Your task to perform on an android device: toggle notification dots Image 0: 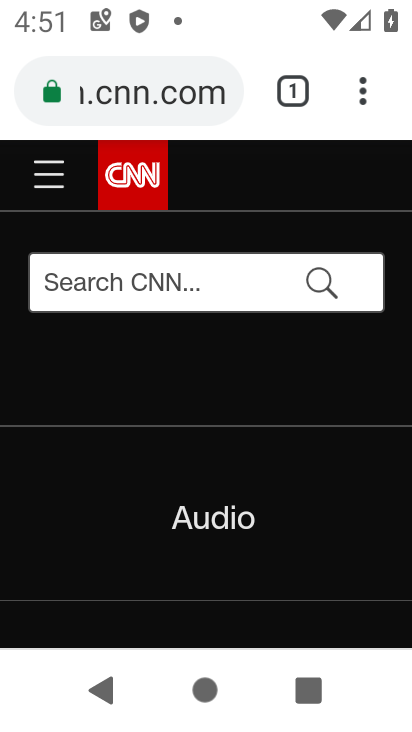
Step 0: press home button
Your task to perform on an android device: toggle notification dots Image 1: 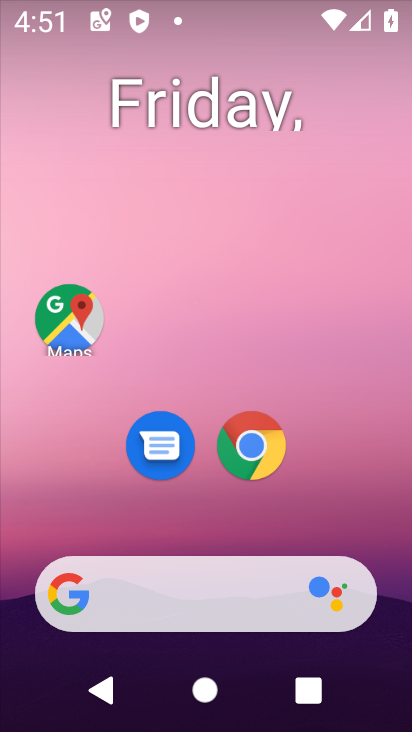
Step 1: drag from (339, 500) to (359, 161)
Your task to perform on an android device: toggle notification dots Image 2: 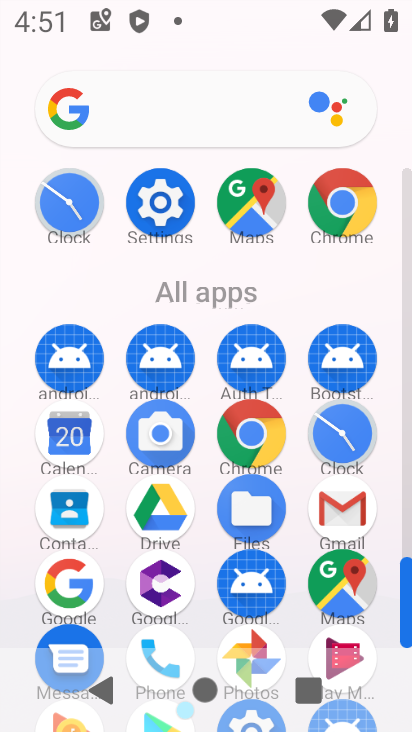
Step 2: click (156, 202)
Your task to perform on an android device: toggle notification dots Image 3: 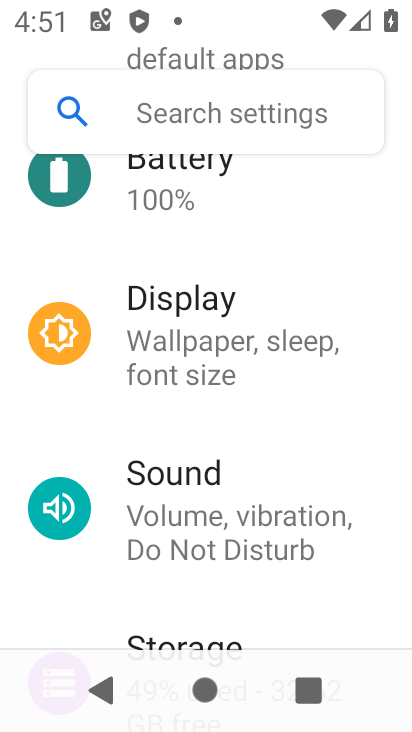
Step 3: drag from (150, 517) to (285, 84)
Your task to perform on an android device: toggle notification dots Image 4: 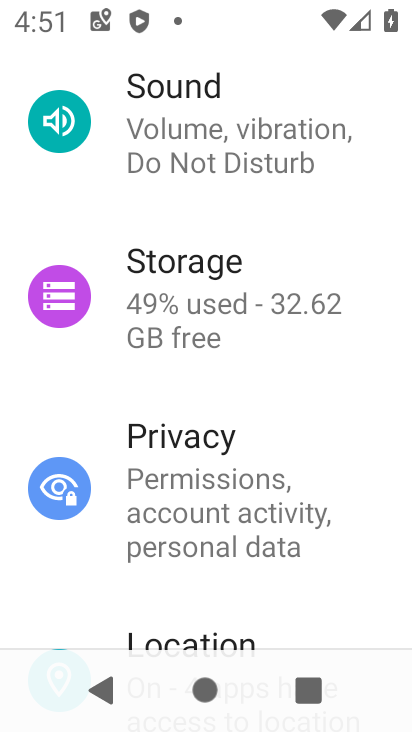
Step 4: drag from (194, 245) to (257, 631)
Your task to perform on an android device: toggle notification dots Image 5: 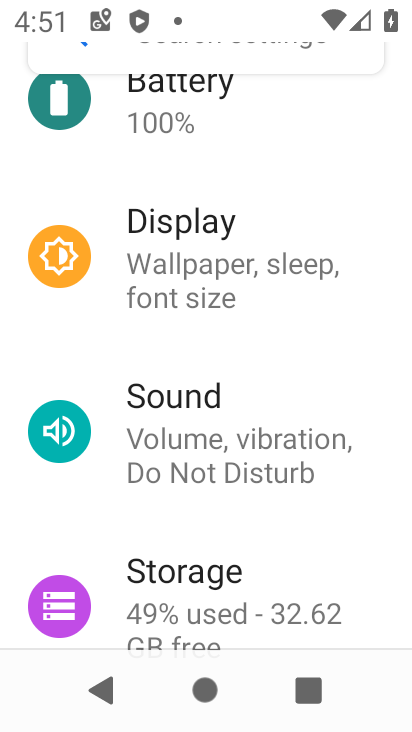
Step 5: drag from (274, 267) to (286, 729)
Your task to perform on an android device: toggle notification dots Image 6: 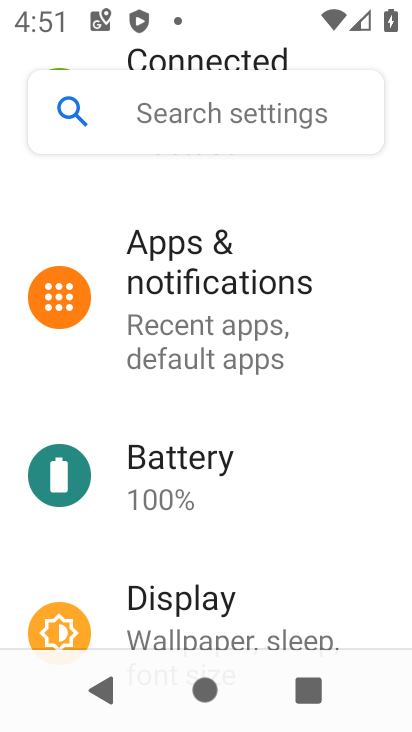
Step 6: drag from (261, 139) to (263, 374)
Your task to perform on an android device: toggle notification dots Image 7: 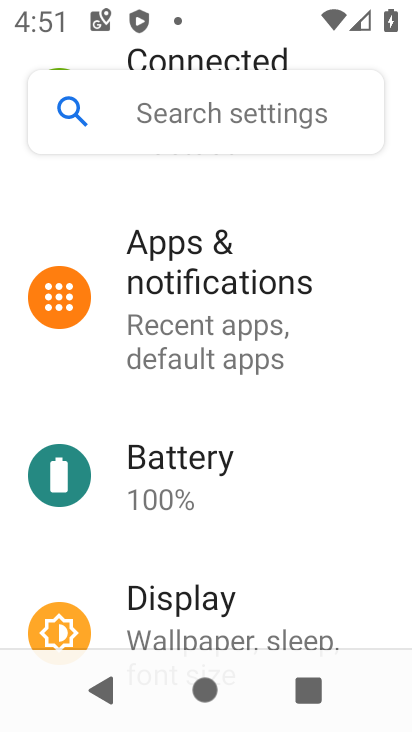
Step 7: click (263, 374)
Your task to perform on an android device: toggle notification dots Image 8: 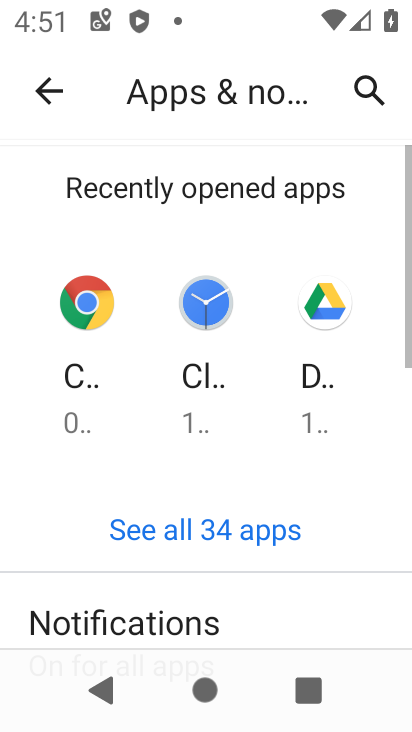
Step 8: drag from (113, 528) to (202, 147)
Your task to perform on an android device: toggle notification dots Image 9: 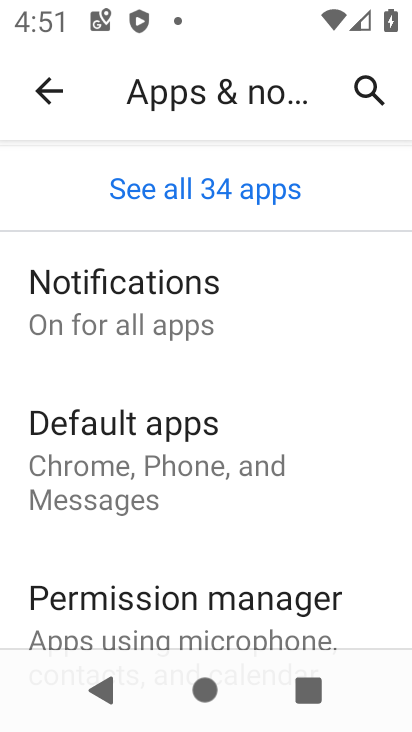
Step 9: click (177, 339)
Your task to perform on an android device: toggle notification dots Image 10: 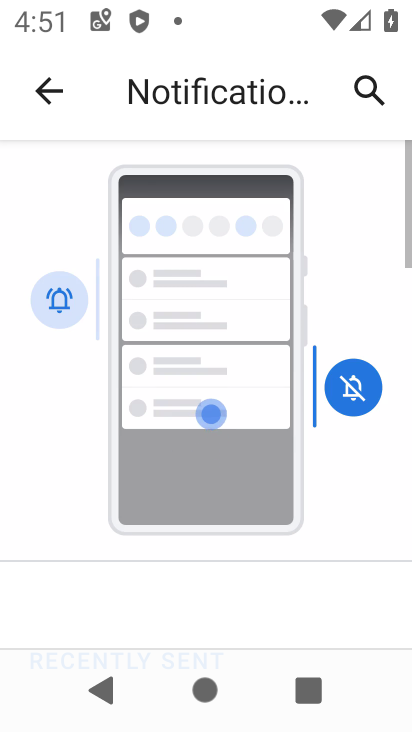
Step 10: drag from (158, 548) to (258, 72)
Your task to perform on an android device: toggle notification dots Image 11: 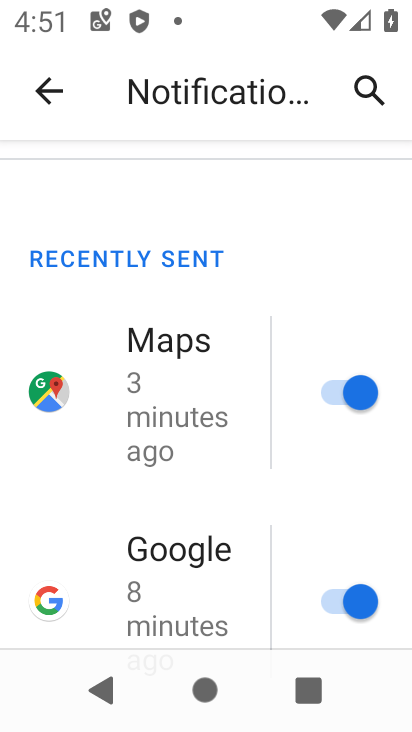
Step 11: drag from (261, 429) to (309, 133)
Your task to perform on an android device: toggle notification dots Image 12: 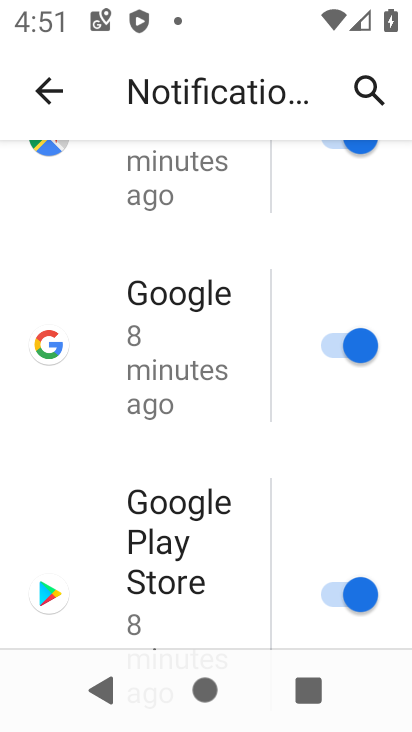
Step 12: drag from (189, 552) to (279, 4)
Your task to perform on an android device: toggle notification dots Image 13: 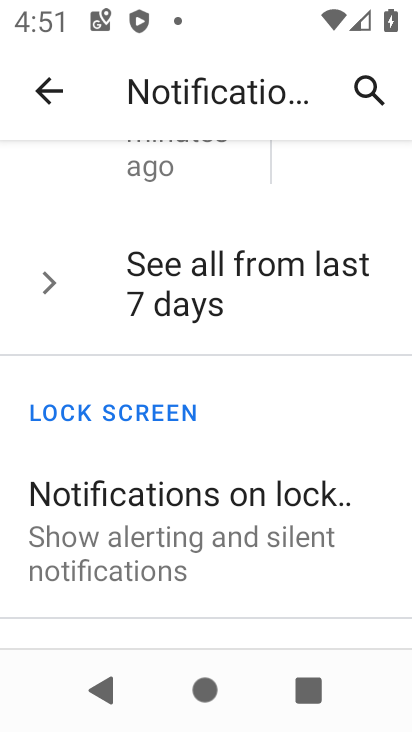
Step 13: drag from (156, 527) to (194, 304)
Your task to perform on an android device: toggle notification dots Image 14: 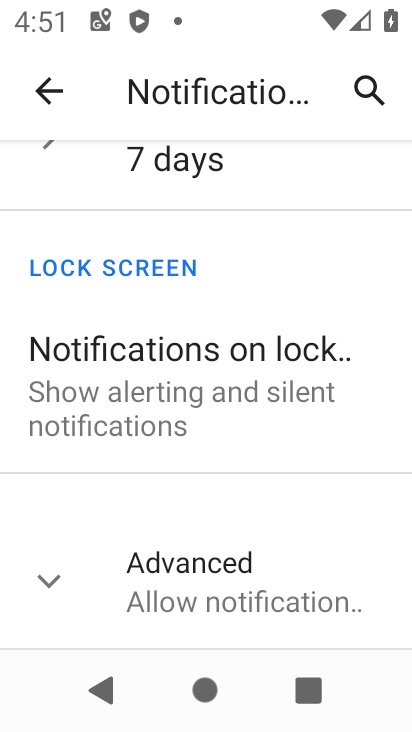
Step 14: click (225, 584)
Your task to perform on an android device: toggle notification dots Image 15: 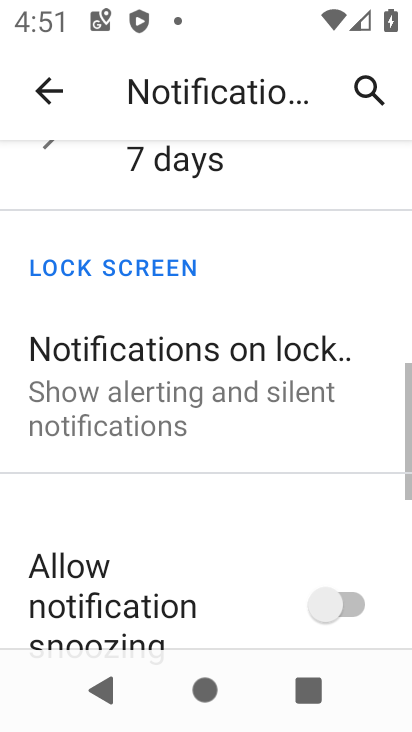
Step 15: drag from (264, 526) to (335, 172)
Your task to perform on an android device: toggle notification dots Image 16: 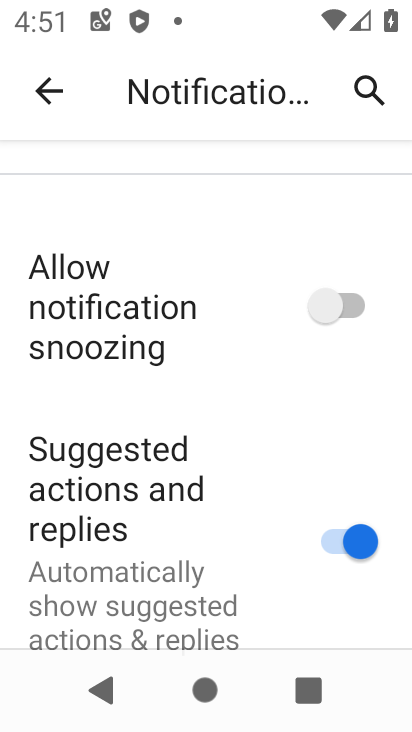
Step 16: drag from (297, 538) to (297, 158)
Your task to perform on an android device: toggle notification dots Image 17: 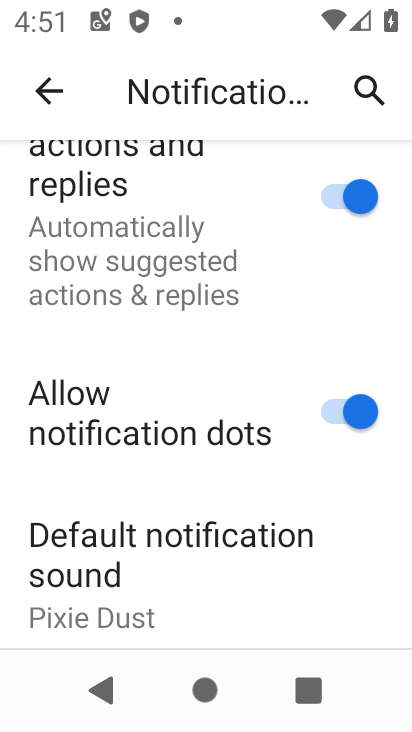
Step 17: click (316, 443)
Your task to perform on an android device: toggle notification dots Image 18: 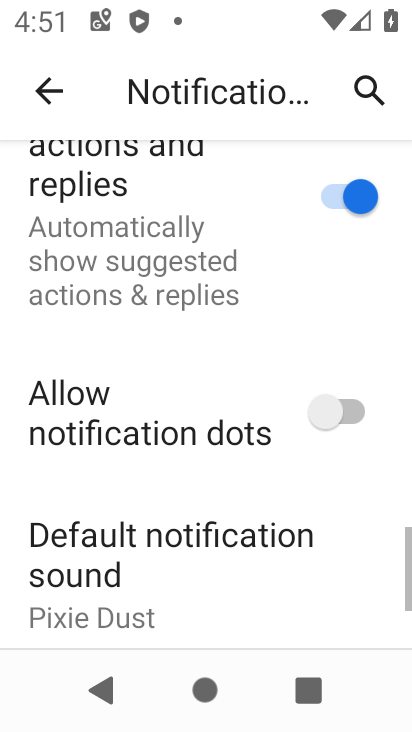
Step 18: task complete